Your task to perform on an android device: Open calendar and show me the first week of next month Image 0: 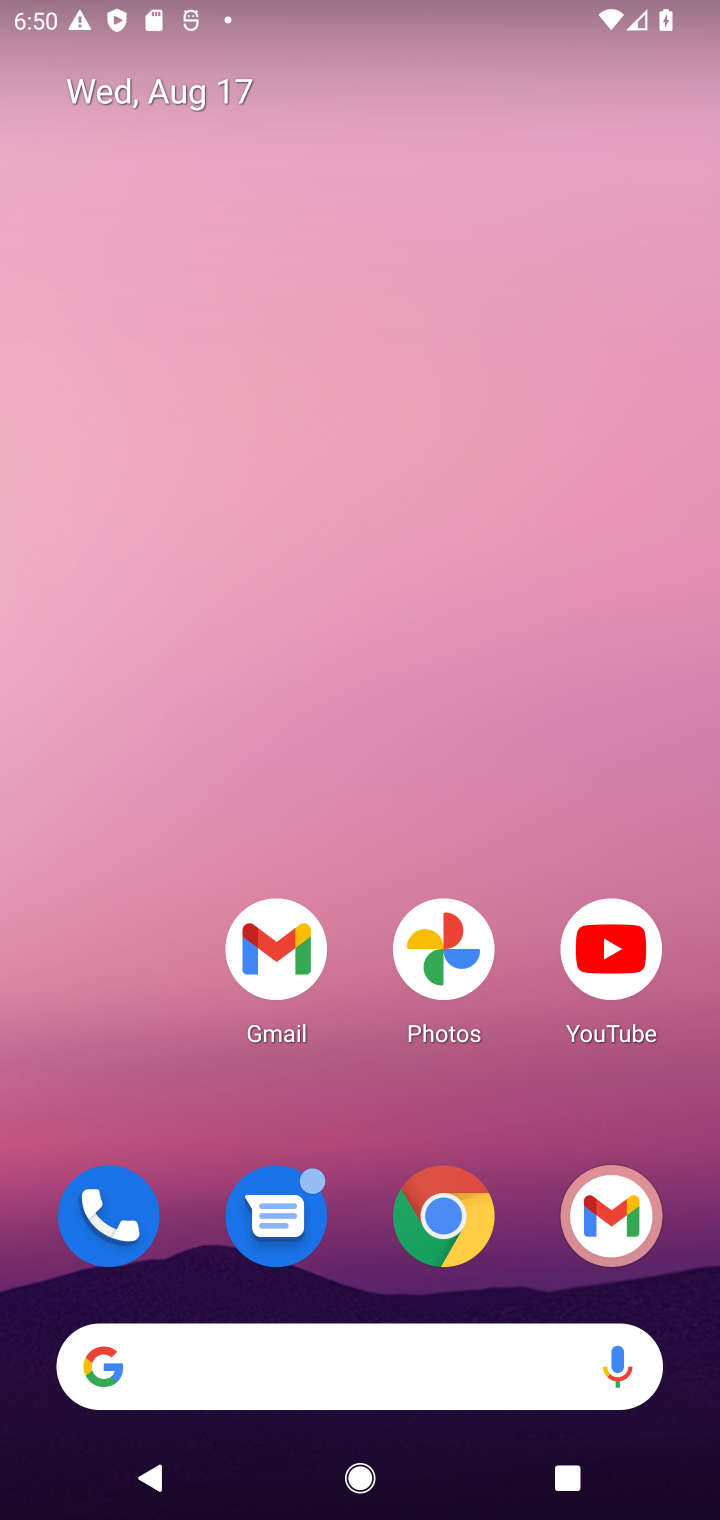
Step 0: drag from (374, 1031) to (447, 38)
Your task to perform on an android device: Open calendar and show me the first week of next month Image 1: 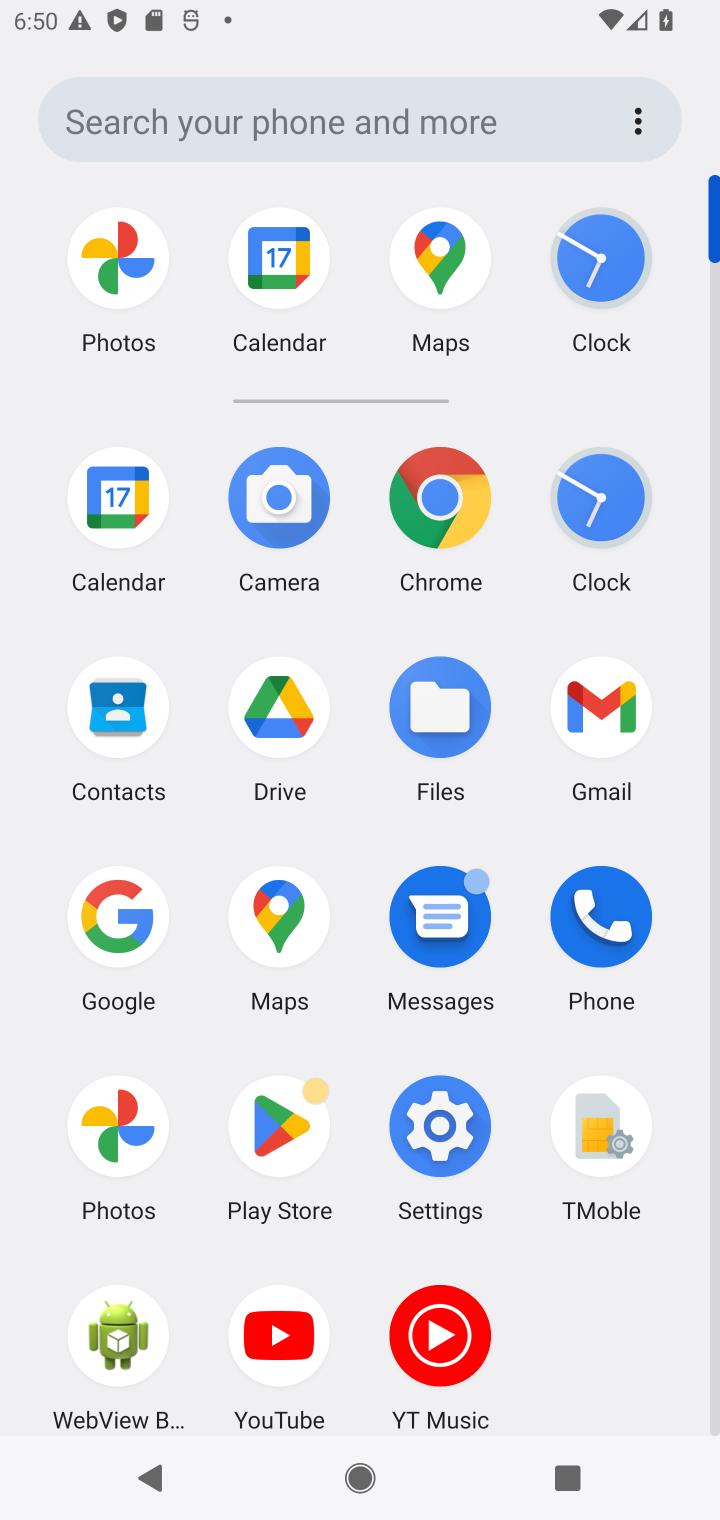
Step 1: click (115, 489)
Your task to perform on an android device: Open calendar and show me the first week of next month Image 2: 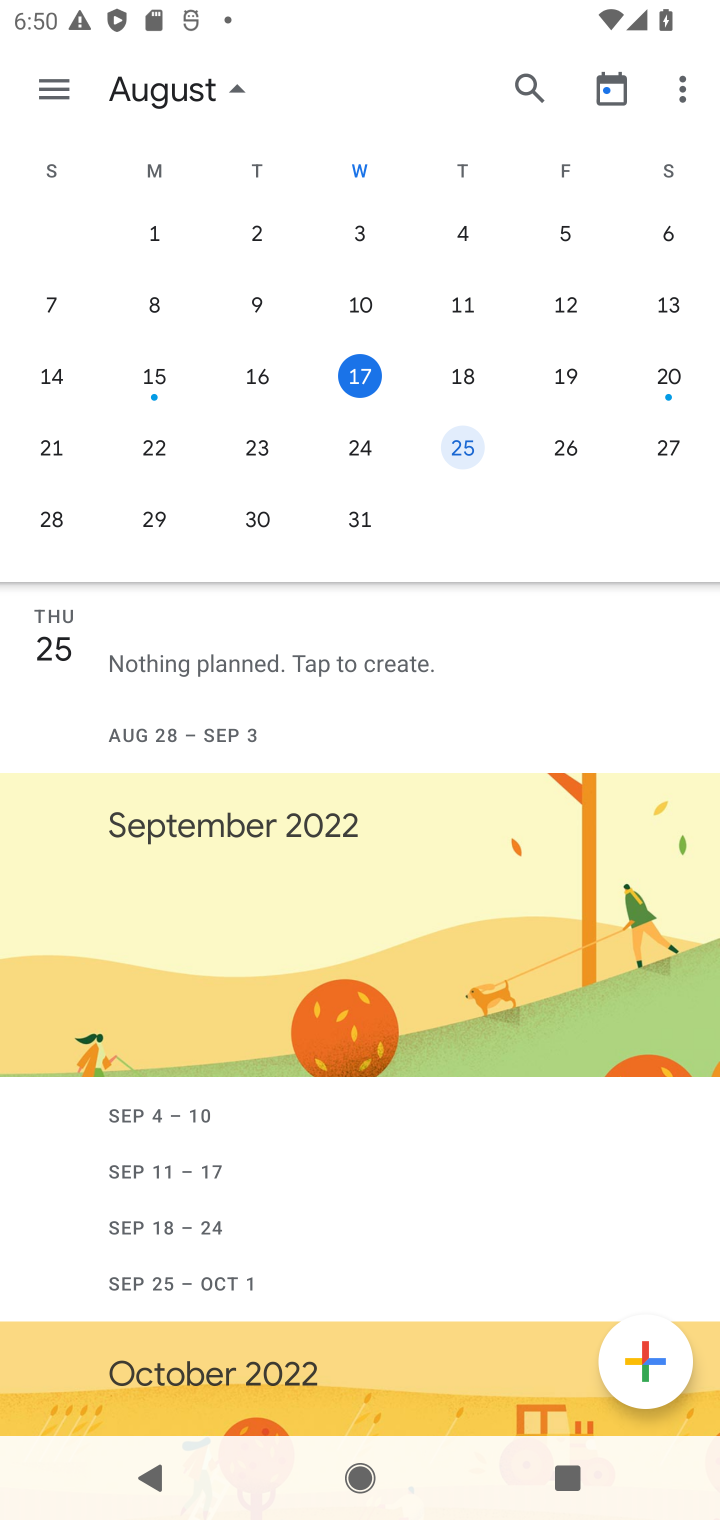
Step 2: drag from (608, 316) to (21, 249)
Your task to perform on an android device: Open calendar and show me the first week of next month Image 3: 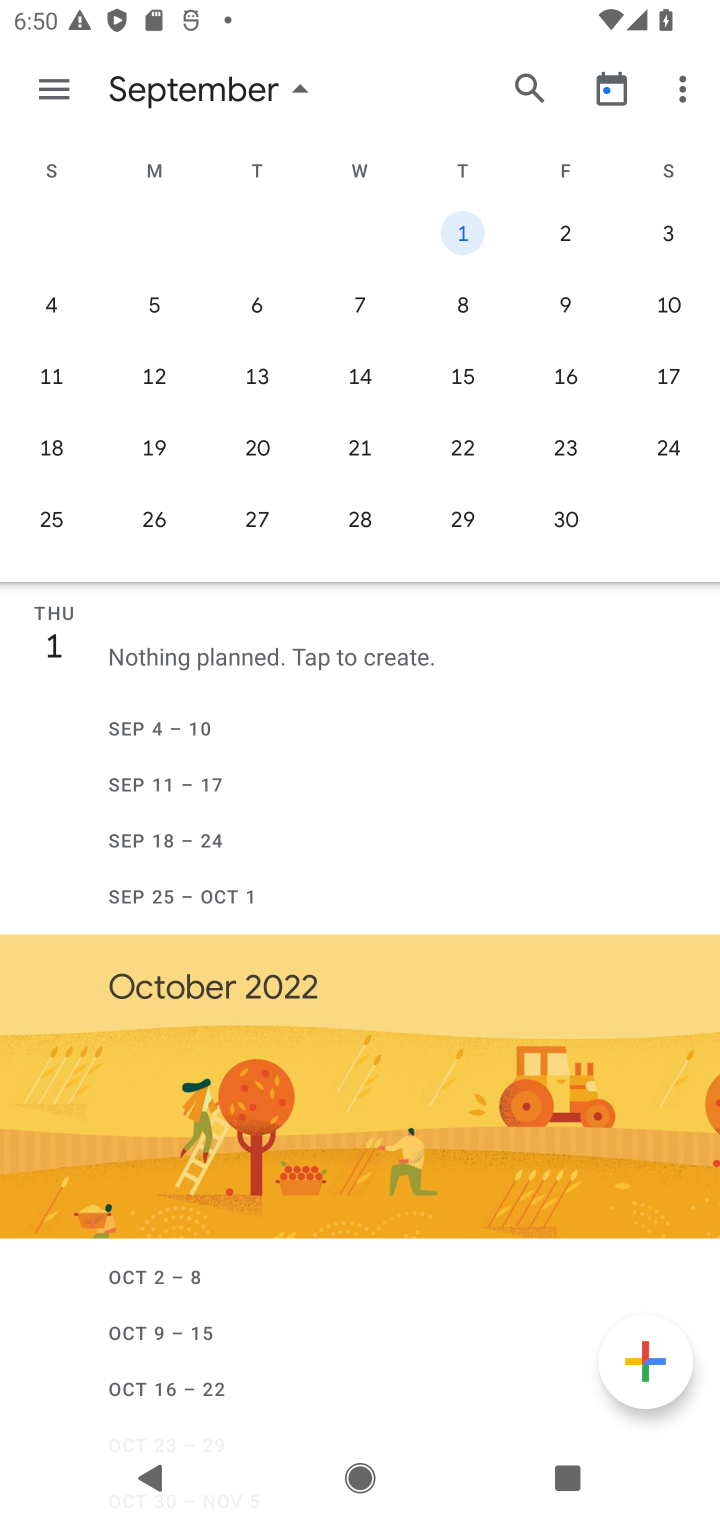
Step 3: click (257, 308)
Your task to perform on an android device: Open calendar and show me the first week of next month Image 4: 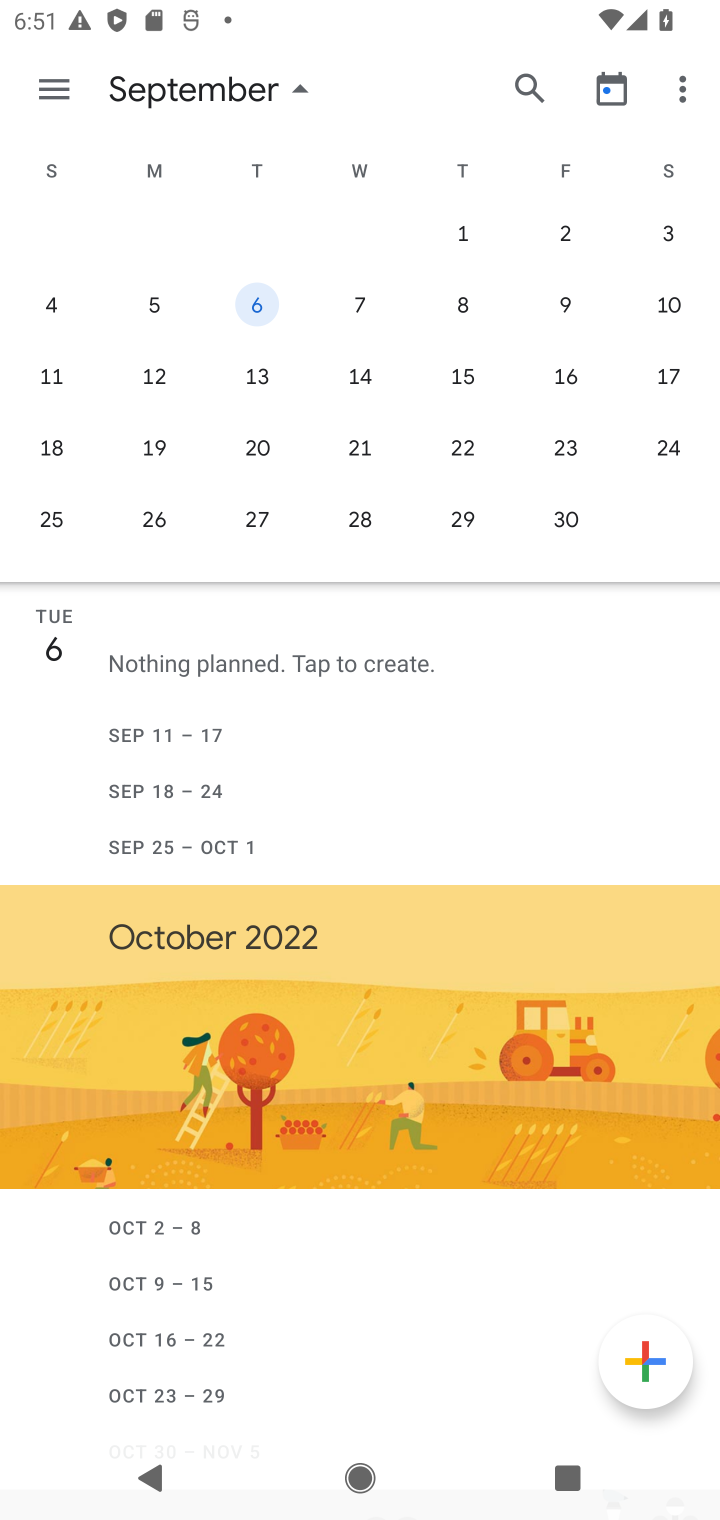
Step 4: click (257, 308)
Your task to perform on an android device: Open calendar and show me the first week of next month Image 5: 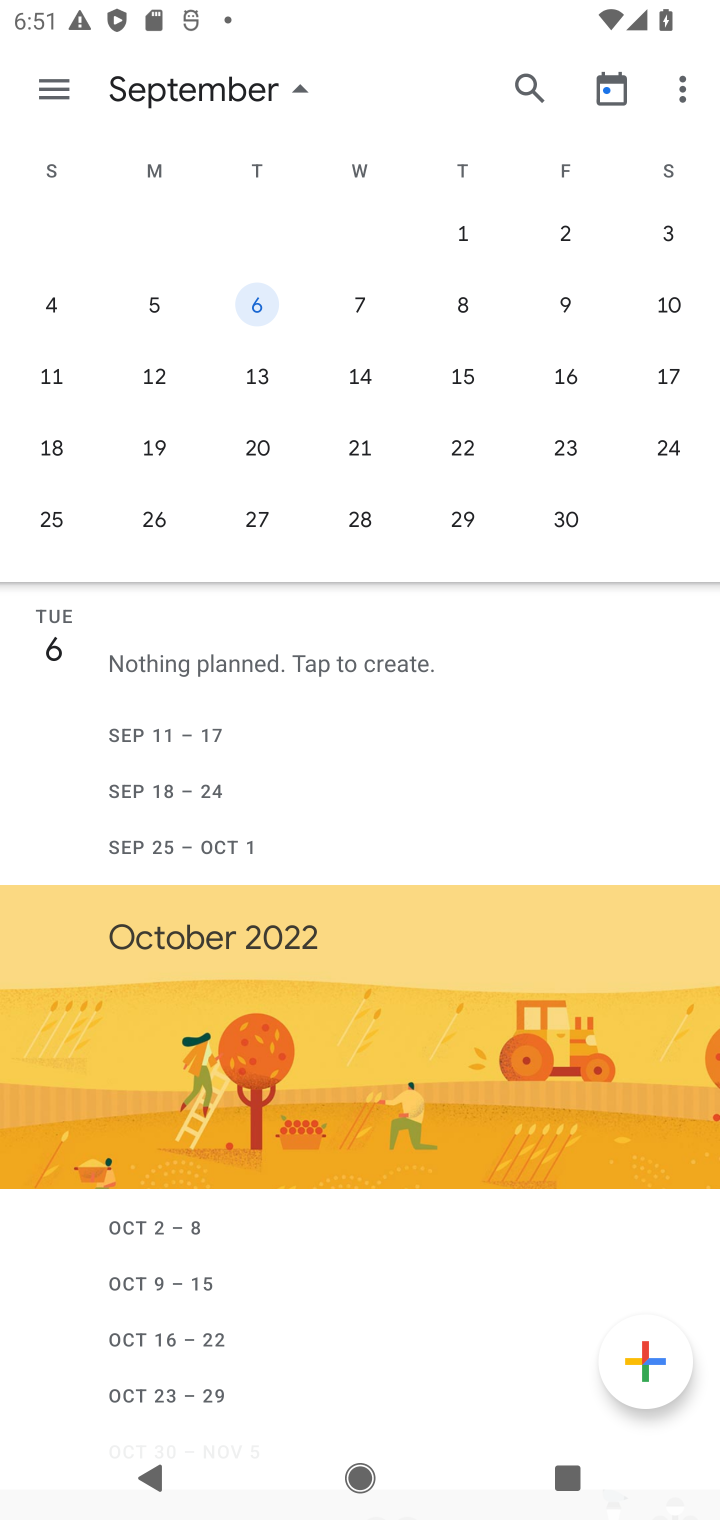
Step 5: task complete